Your task to perform on an android device: Open my contact list Image 0: 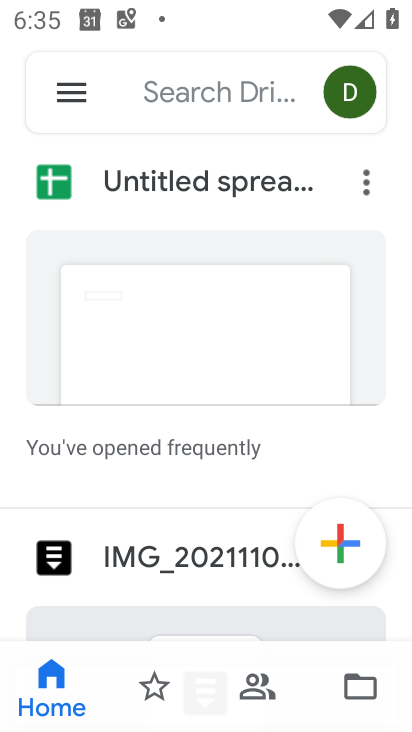
Step 0: press home button
Your task to perform on an android device: Open my contact list Image 1: 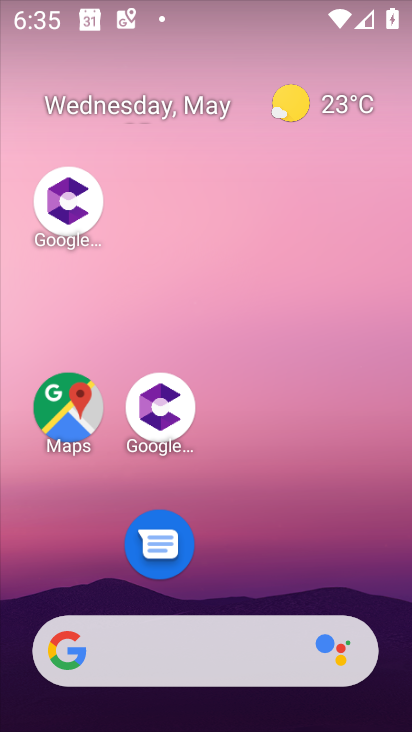
Step 1: drag from (301, 532) to (183, 28)
Your task to perform on an android device: Open my contact list Image 2: 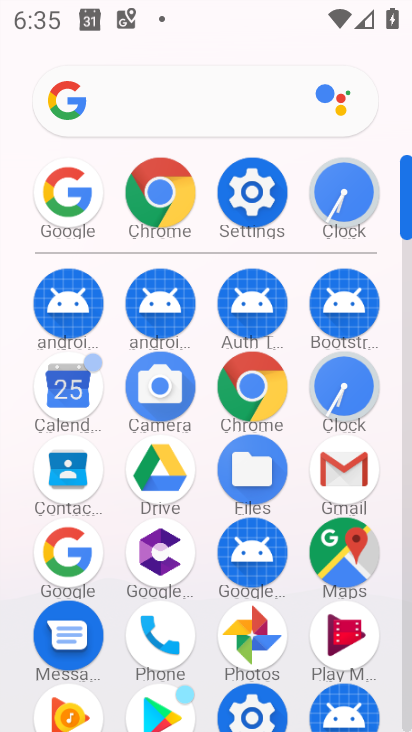
Step 2: click (70, 479)
Your task to perform on an android device: Open my contact list Image 3: 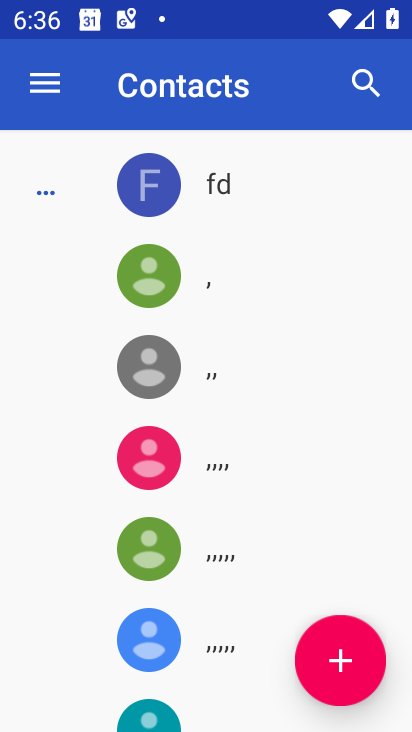
Step 3: task complete